Your task to perform on an android device: Open Reddit.com Image 0: 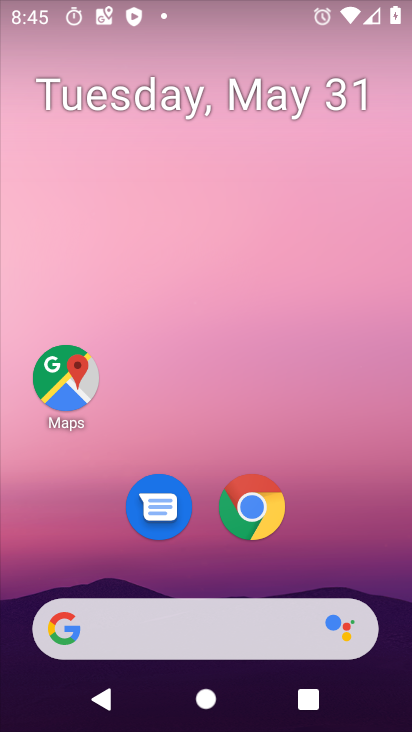
Step 0: click (258, 508)
Your task to perform on an android device: Open Reddit.com Image 1: 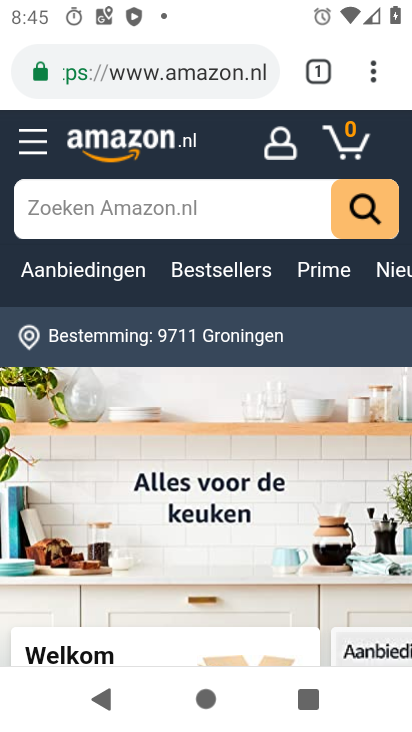
Step 1: click (102, 66)
Your task to perform on an android device: Open Reddit.com Image 2: 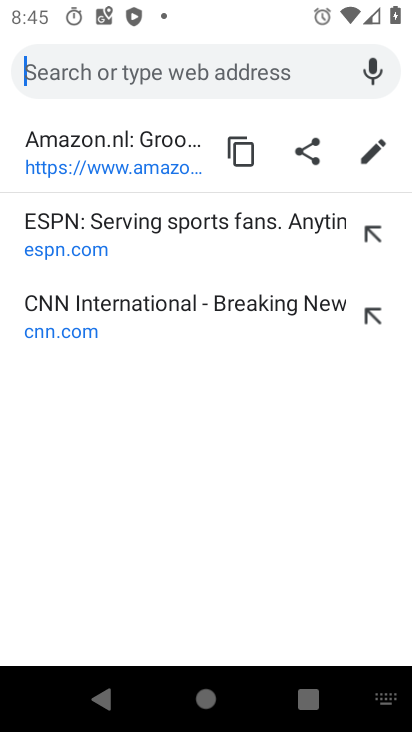
Step 2: type "reddit.com"
Your task to perform on an android device: Open Reddit.com Image 3: 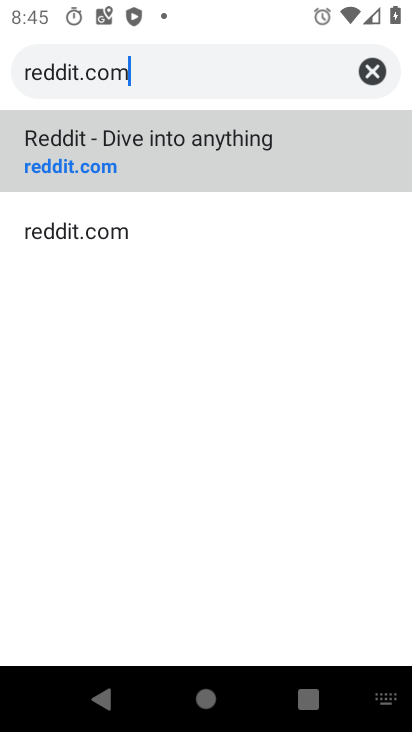
Step 3: click (53, 230)
Your task to perform on an android device: Open Reddit.com Image 4: 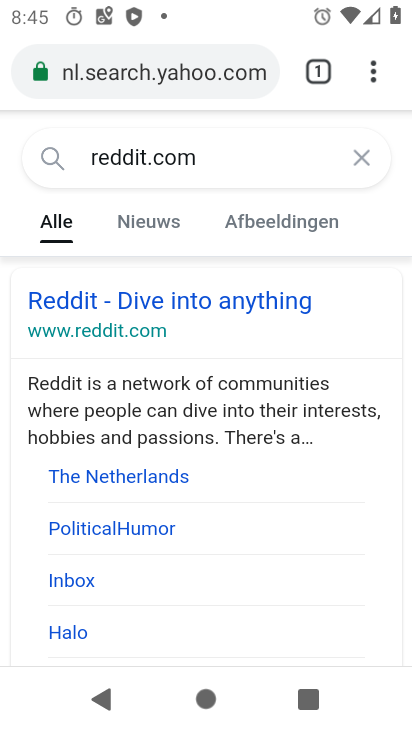
Step 4: click (47, 311)
Your task to perform on an android device: Open Reddit.com Image 5: 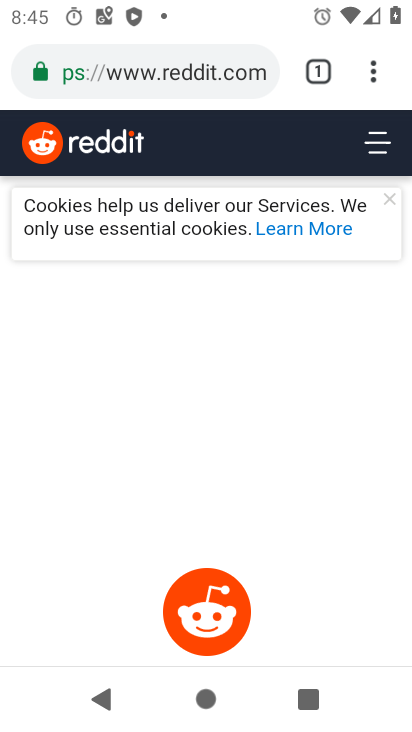
Step 5: task complete